Your task to perform on an android device: toggle javascript in the chrome app Image 0: 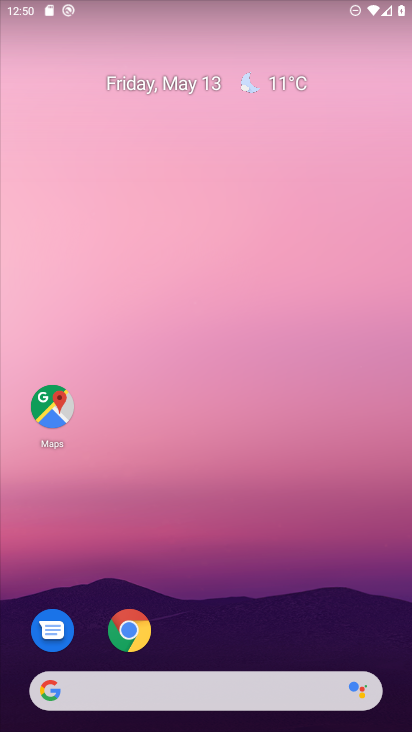
Step 0: click (133, 629)
Your task to perform on an android device: toggle javascript in the chrome app Image 1: 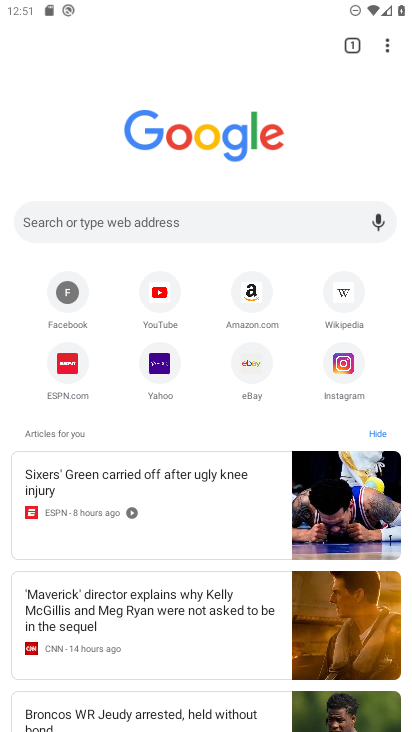
Step 1: drag from (390, 41) to (273, 378)
Your task to perform on an android device: toggle javascript in the chrome app Image 2: 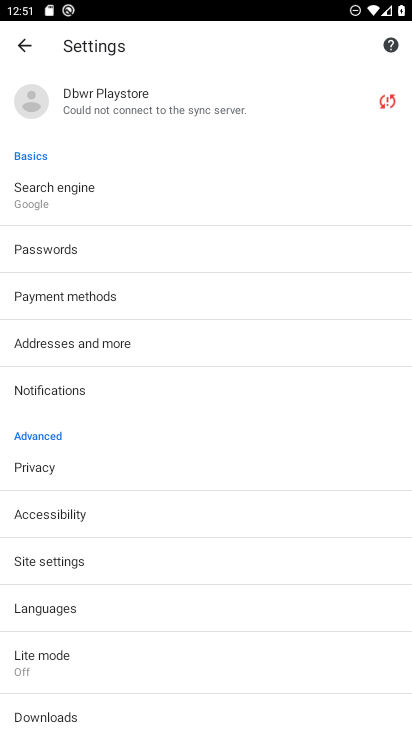
Step 2: click (79, 565)
Your task to perform on an android device: toggle javascript in the chrome app Image 3: 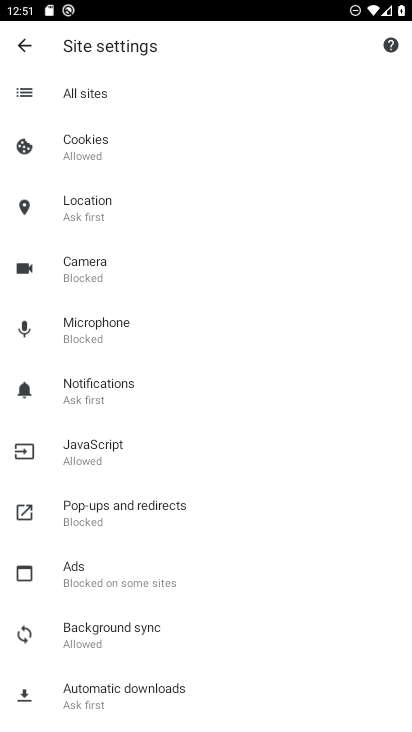
Step 3: click (111, 444)
Your task to perform on an android device: toggle javascript in the chrome app Image 4: 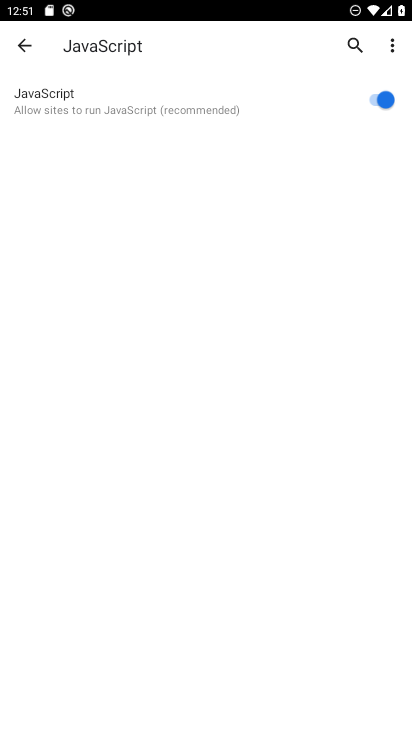
Step 4: click (380, 107)
Your task to perform on an android device: toggle javascript in the chrome app Image 5: 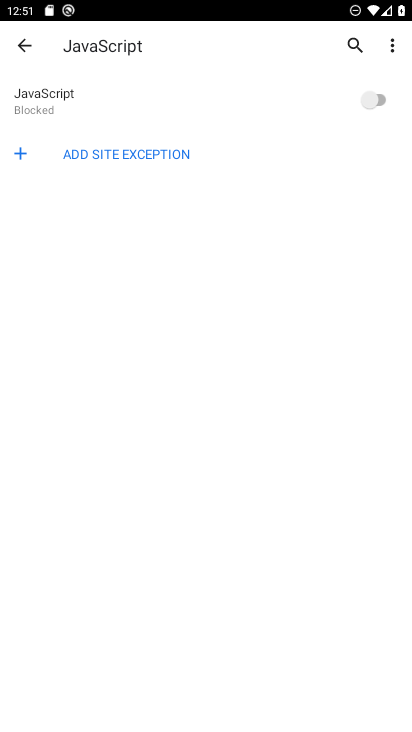
Step 5: task complete